Your task to perform on an android device: turn on translation in the chrome app Image 0: 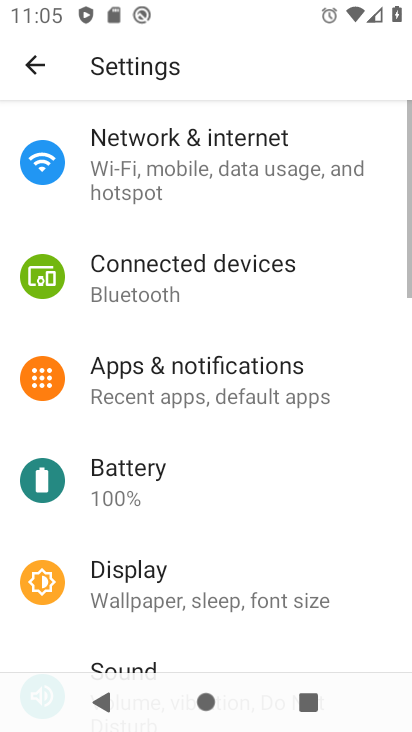
Step 0: press home button
Your task to perform on an android device: turn on translation in the chrome app Image 1: 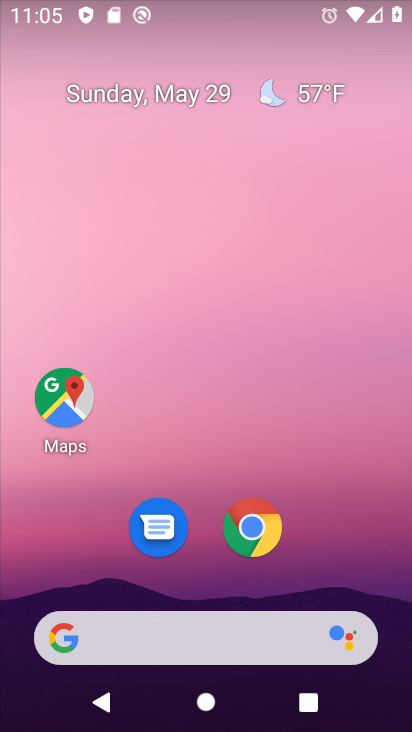
Step 1: click (237, 554)
Your task to perform on an android device: turn on translation in the chrome app Image 2: 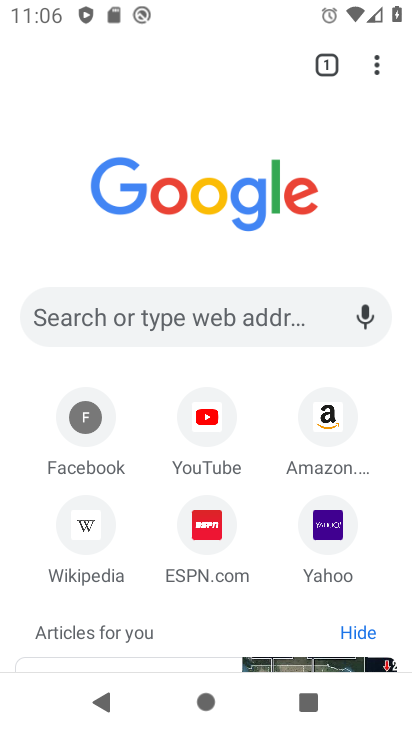
Step 2: click (386, 74)
Your task to perform on an android device: turn on translation in the chrome app Image 3: 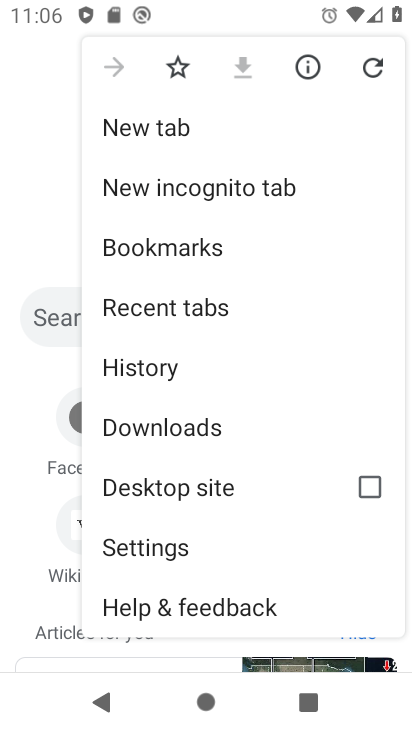
Step 3: click (167, 550)
Your task to perform on an android device: turn on translation in the chrome app Image 4: 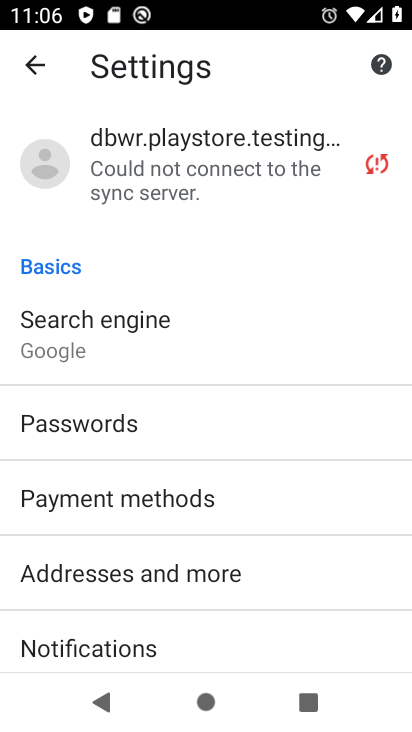
Step 4: drag from (120, 609) to (160, 75)
Your task to perform on an android device: turn on translation in the chrome app Image 5: 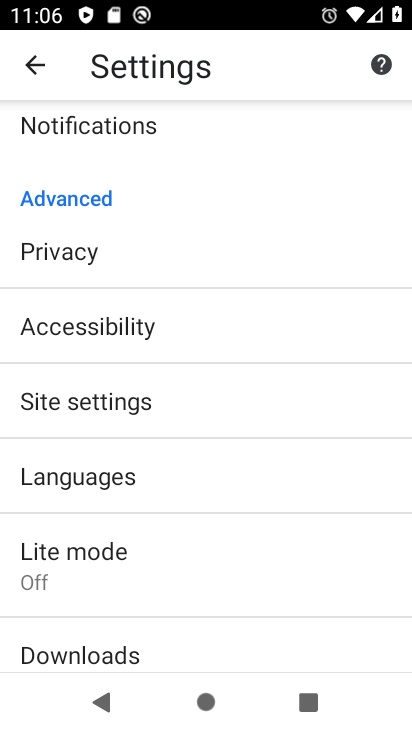
Step 5: click (148, 496)
Your task to perform on an android device: turn on translation in the chrome app Image 6: 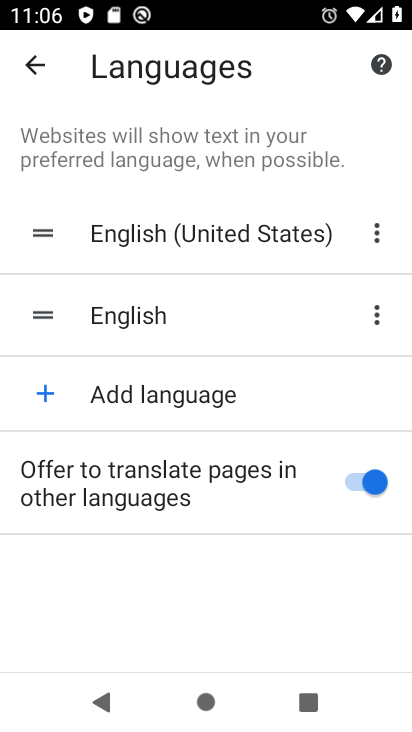
Step 6: task complete